Your task to perform on an android device: Clear all items from cart on target.com. Add "rayovac triple a" to the cart on target.com Image 0: 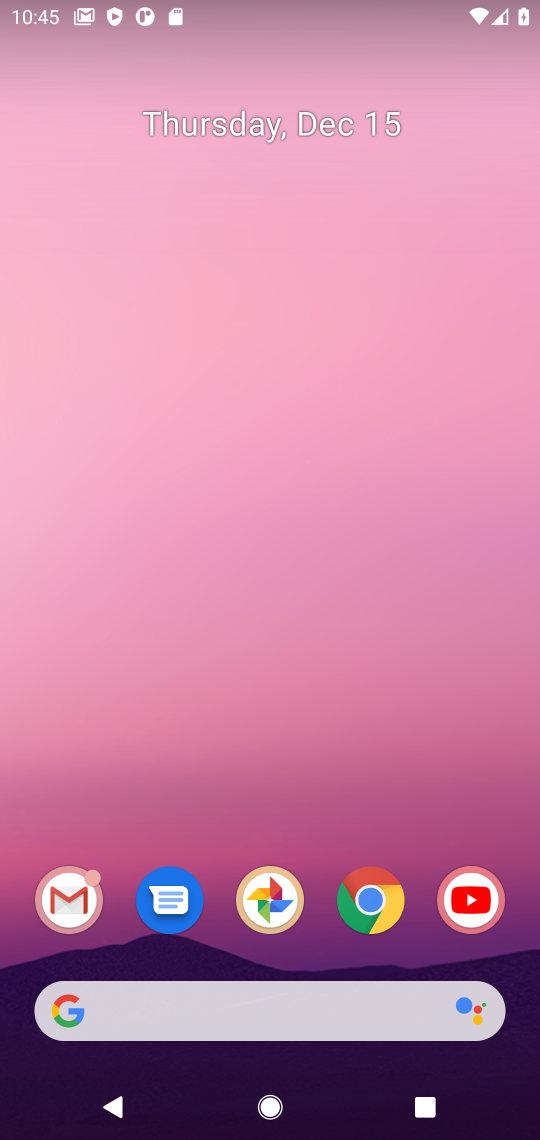
Step 0: click (372, 916)
Your task to perform on an android device: Clear all items from cart on target.com. Add "rayovac triple a" to the cart on target.com Image 1: 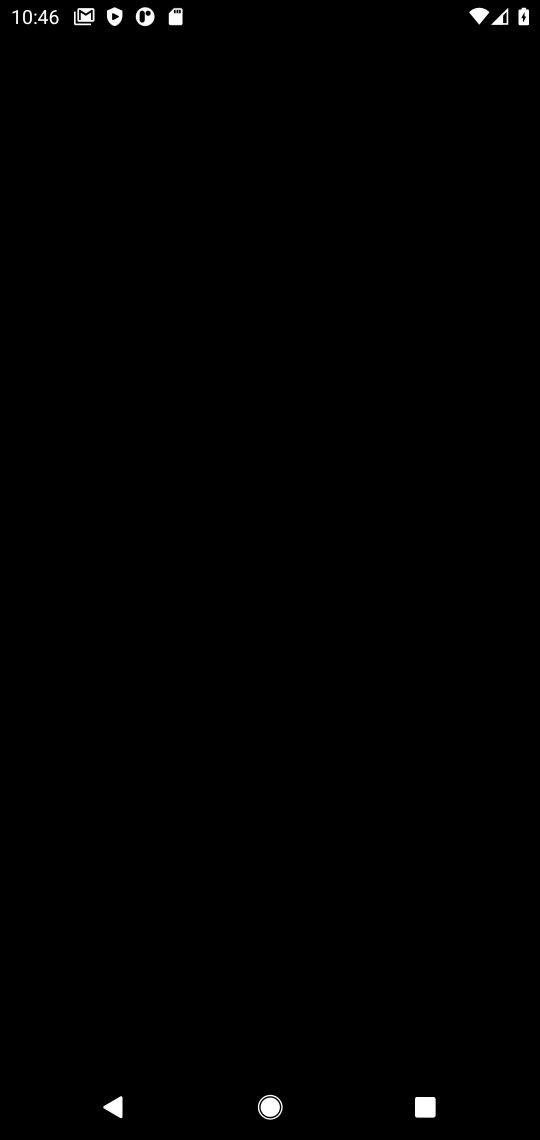
Step 1: press home button
Your task to perform on an android device: Clear all items from cart on target.com. Add "rayovac triple a" to the cart on target.com Image 2: 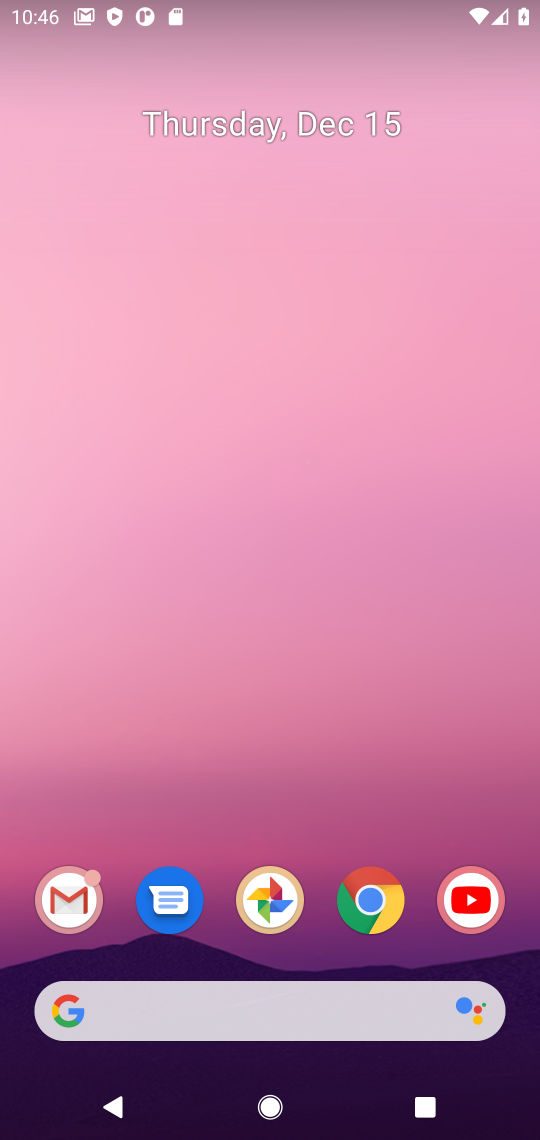
Step 2: click (384, 903)
Your task to perform on an android device: Clear all items from cart on target.com. Add "rayovac triple a" to the cart on target.com Image 3: 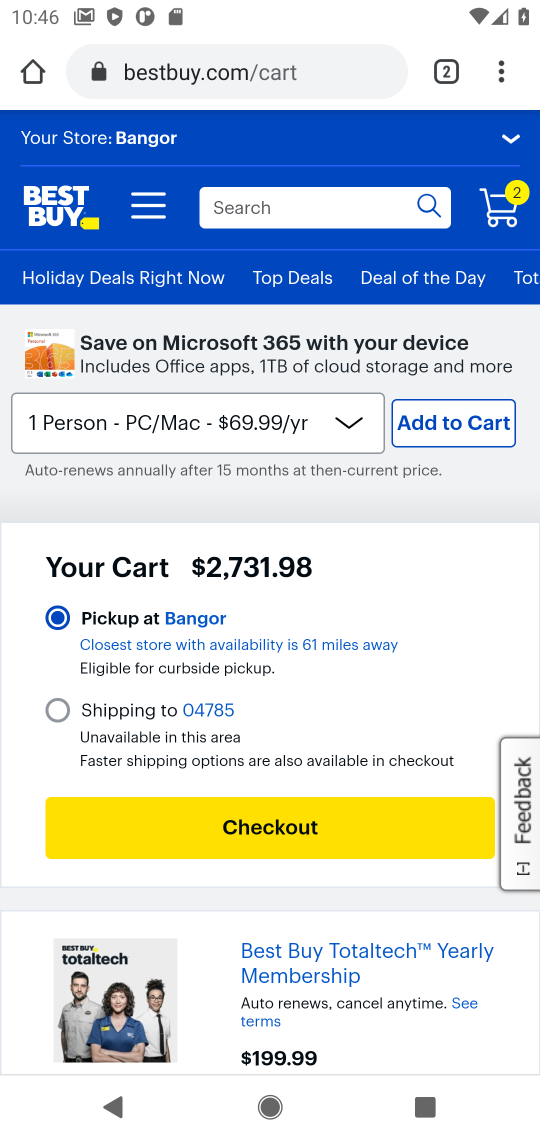
Step 3: click (206, 73)
Your task to perform on an android device: Clear all items from cart on target.com. Add "rayovac triple a" to the cart on target.com Image 4: 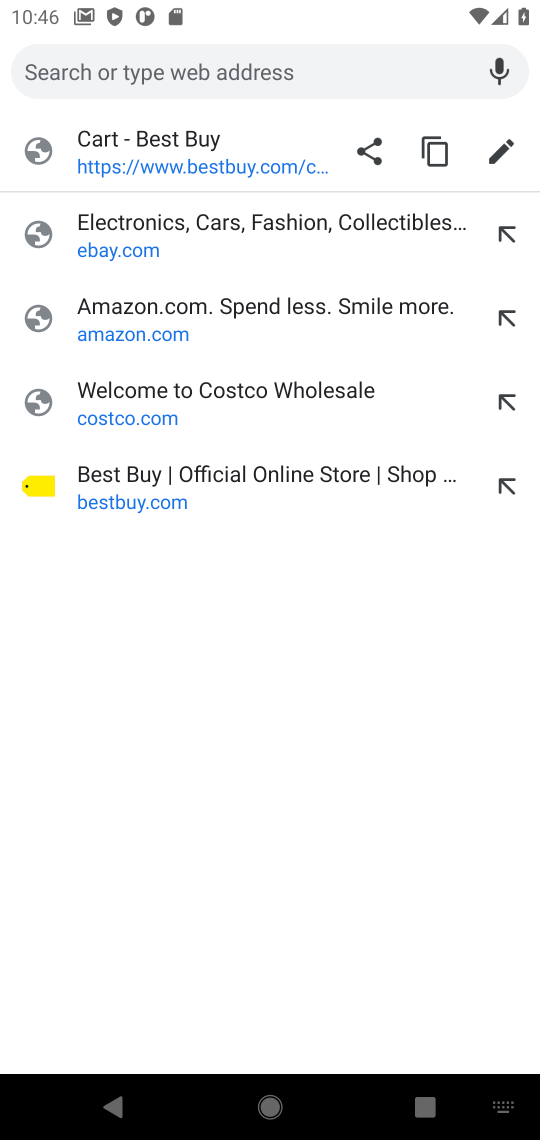
Step 4: type "target.com"
Your task to perform on an android device: Clear all items from cart on target.com. Add "rayovac triple a" to the cart on target.com Image 5: 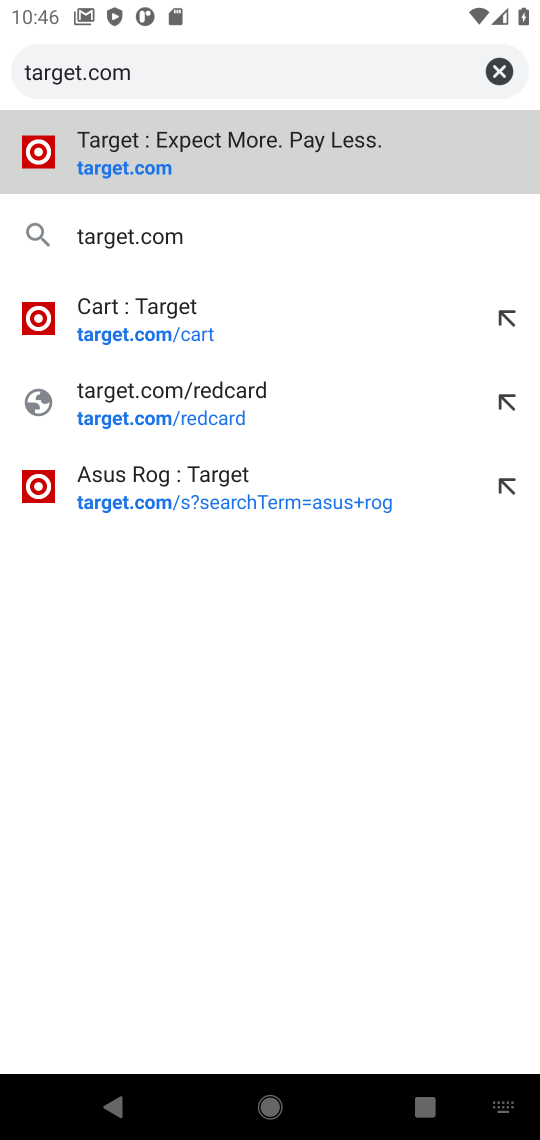
Step 5: click (254, 166)
Your task to perform on an android device: Clear all items from cart on target.com. Add "rayovac triple a" to the cart on target.com Image 6: 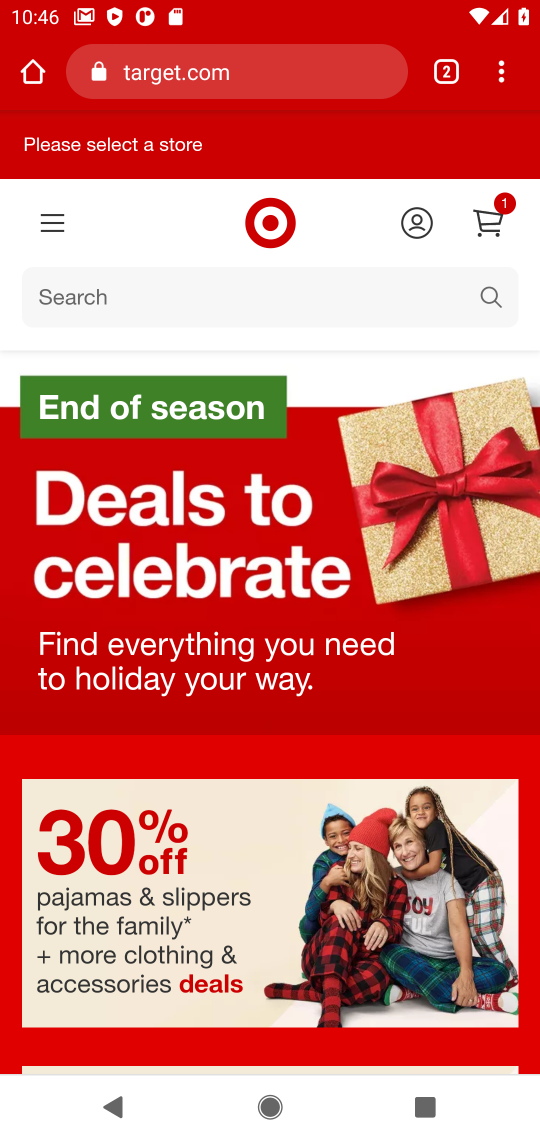
Step 6: click (500, 236)
Your task to perform on an android device: Clear all items from cart on target.com. Add "rayovac triple a" to the cart on target.com Image 7: 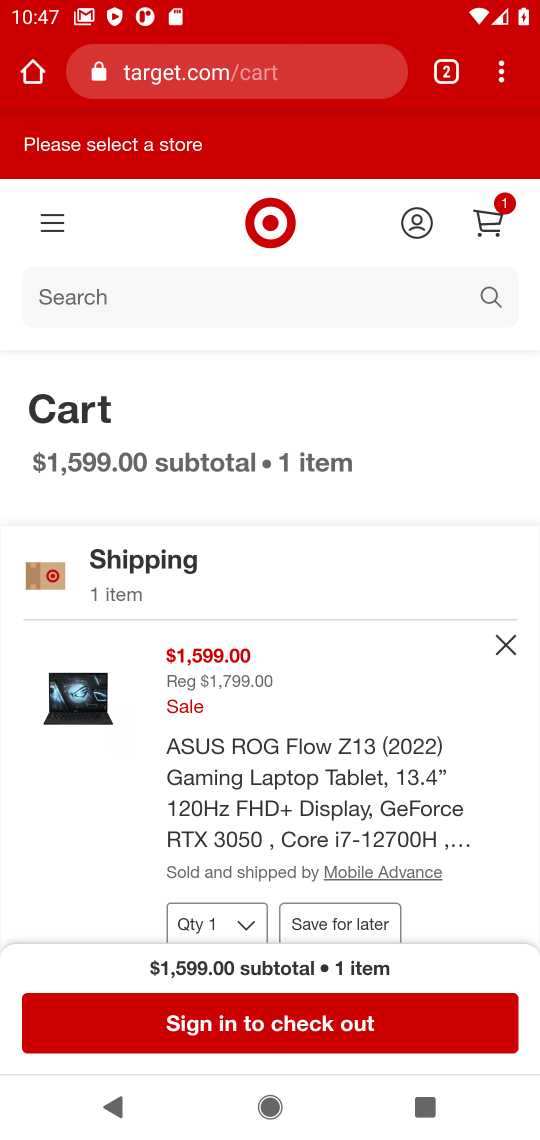
Step 7: click (509, 648)
Your task to perform on an android device: Clear all items from cart on target.com. Add "rayovac triple a" to the cart on target.com Image 8: 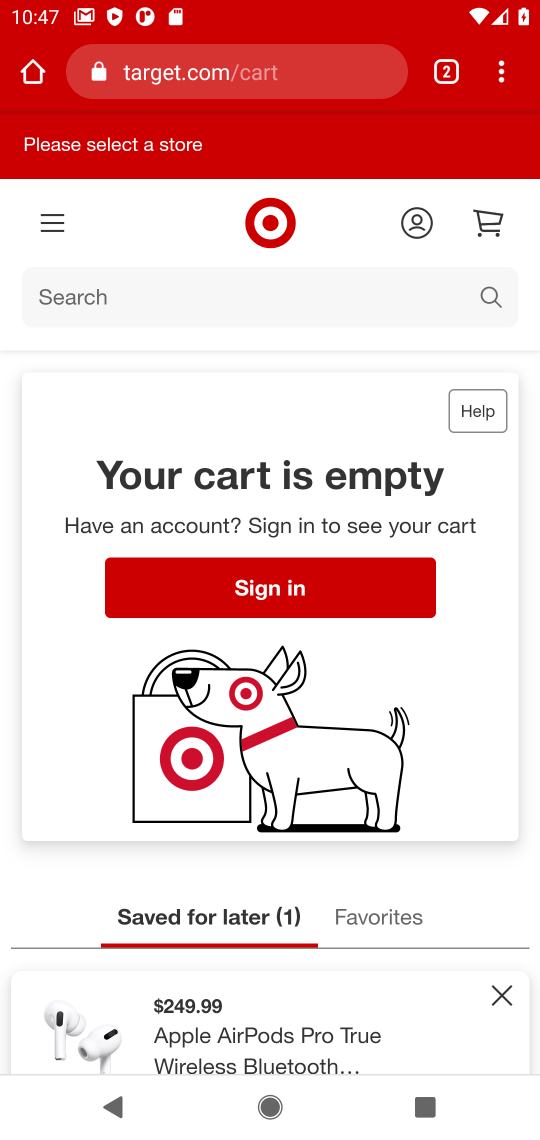
Step 8: click (208, 295)
Your task to perform on an android device: Clear all items from cart on target.com. Add "rayovac triple a" to the cart on target.com Image 9: 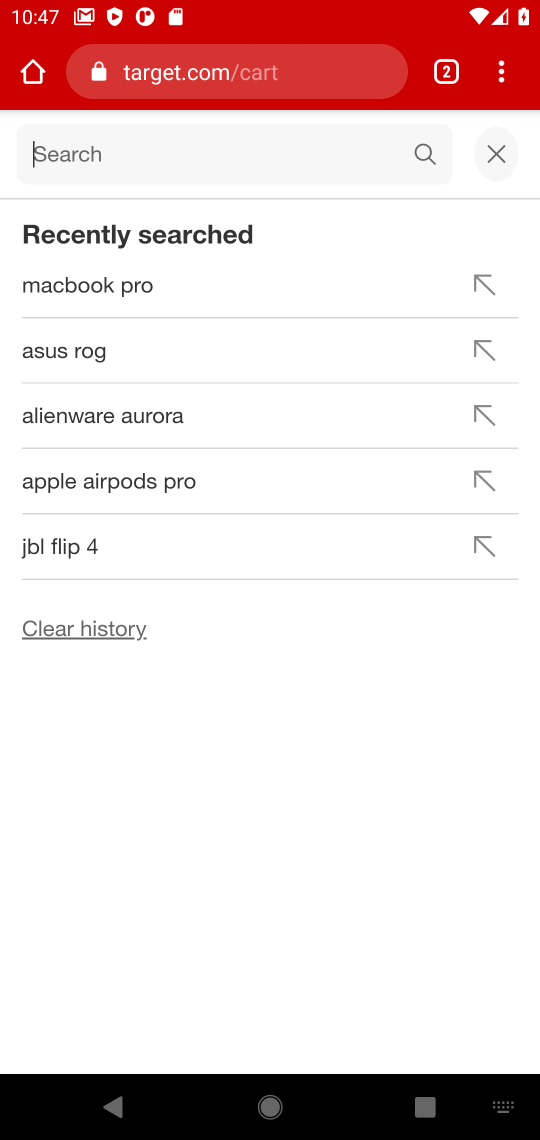
Step 9: type "rayovac triple a"
Your task to perform on an android device: Clear all items from cart on target.com. Add "rayovac triple a" to the cart on target.com Image 10: 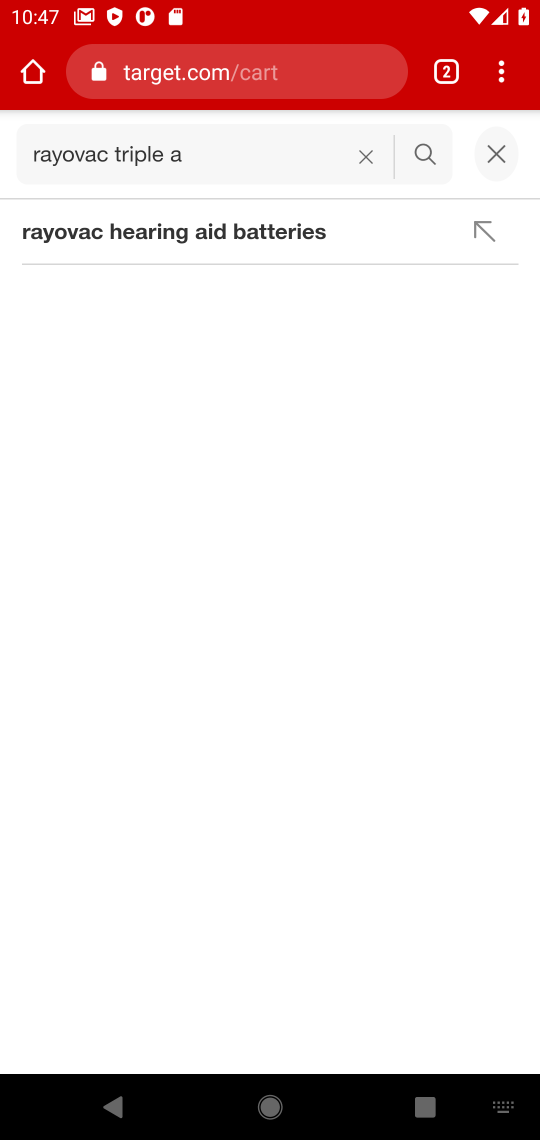
Step 10: press enter
Your task to perform on an android device: Clear all items from cart on target.com. Add "rayovac triple a" to the cart on target.com Image 11: 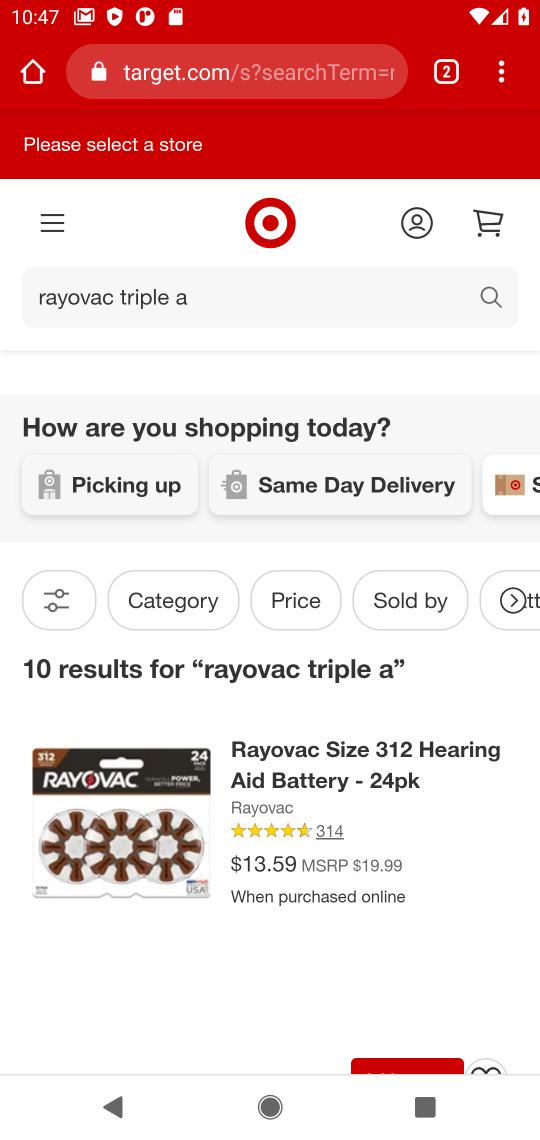
Step 11: task complete